Your task to perform on an android device: toggle notifications settings in the gmail app Image 0: 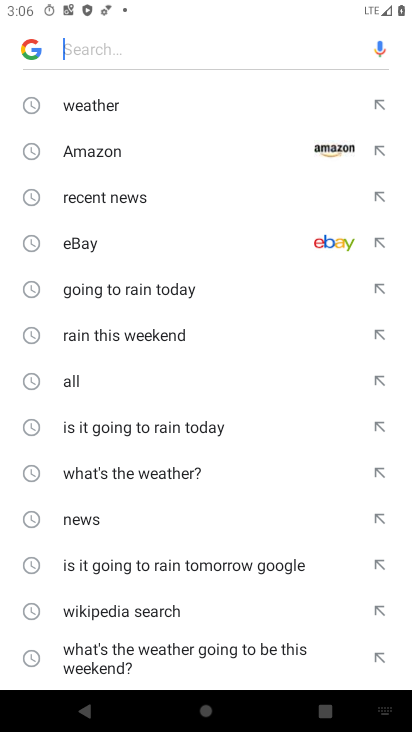
Step 0: press home button
Your task to perform on an android device: toggle notifications settings in the gmail app Image 1: 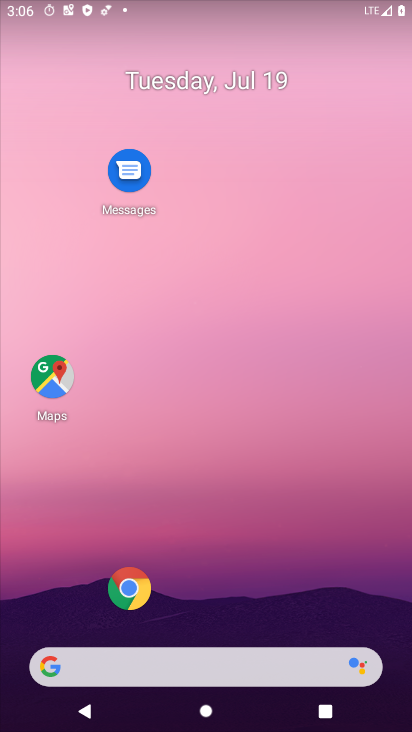
Step 1: drag from (39, 696) to (288, 77)
Your task to perform on an android device: toggle notifications settings in the gmail app Image 2: 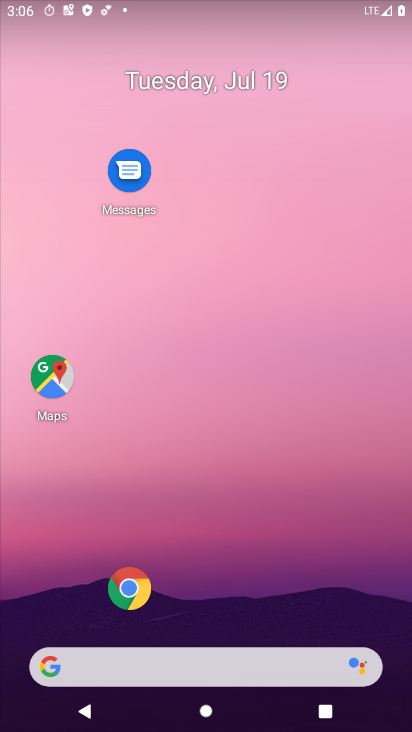
Step 2: drag from (37, 707) to (208, 250)
Your task to perform on an android device: toggle notifications settings in the gmail app Image 3: 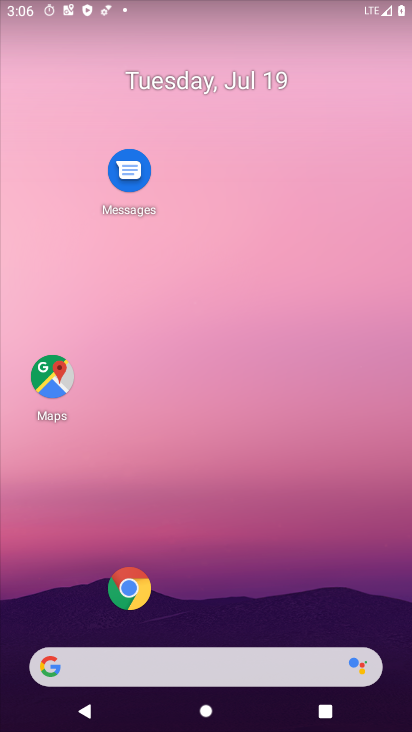
Step 3: drag from (18, 700) to (299, 22)
Your task to perform on an android device: toggle notifications settings in the gmail app Image 4: 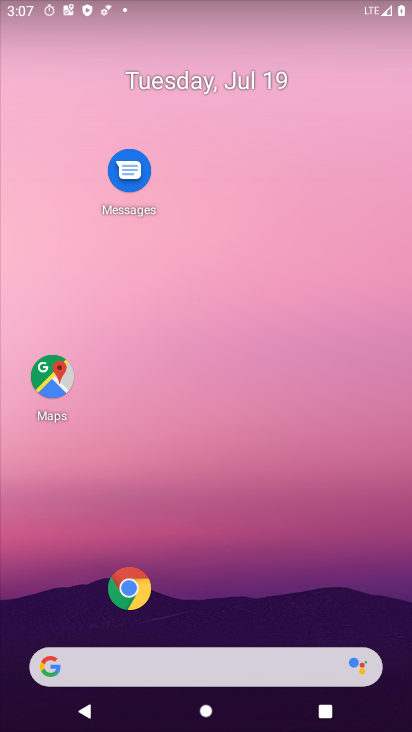
Step 4: drag from (17, 692) to (196, 20)
Your task to perform on an android device: toggle notifications settings in the gmail app Image 5: 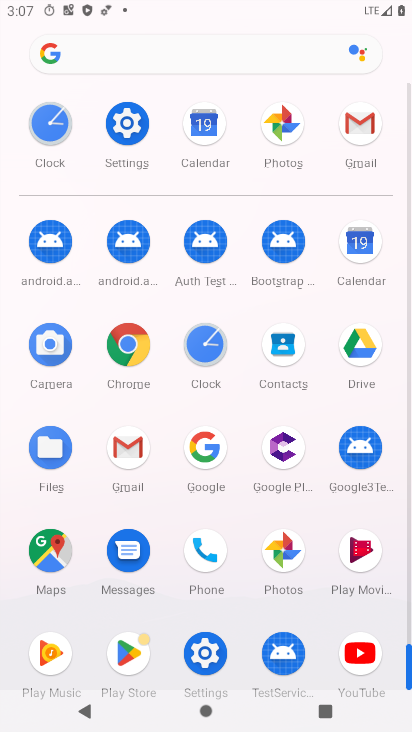
Step 5: click (120, 453)
Your task to perform on an android device: toggle notifications settings in the gmail app Image 6: 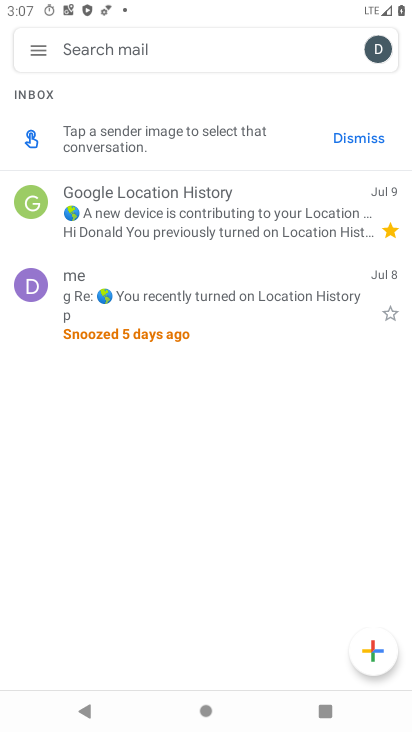
Step 6: click (39, 48)
Your task to perform on an android device: toggle notifications settings in the gmail app Image 7: 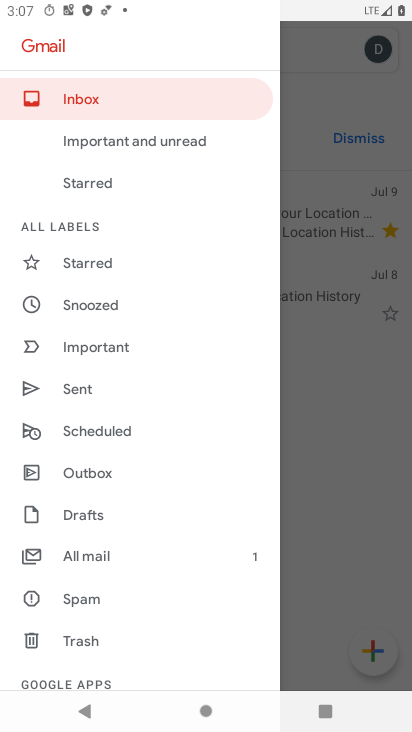
Step 7: drag from (140, 647) to (160, 365)
Your task to perform on an android device: toggle notifications settings in the gmail app Image 8: 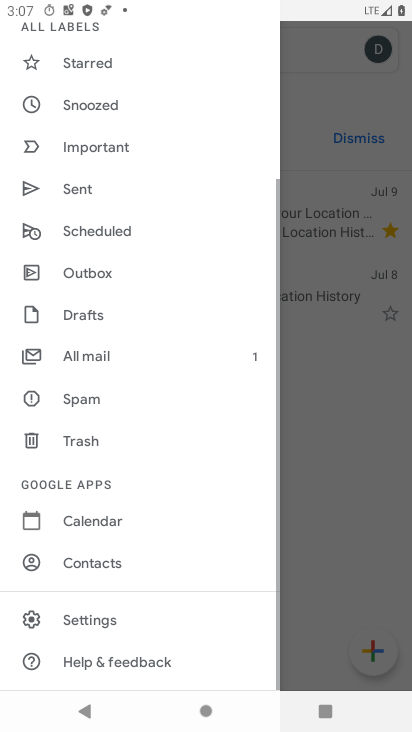
Step 8: click (83, 621)
Your task to perform on an android device: toggle notifications settings in the gmail app Image 9: 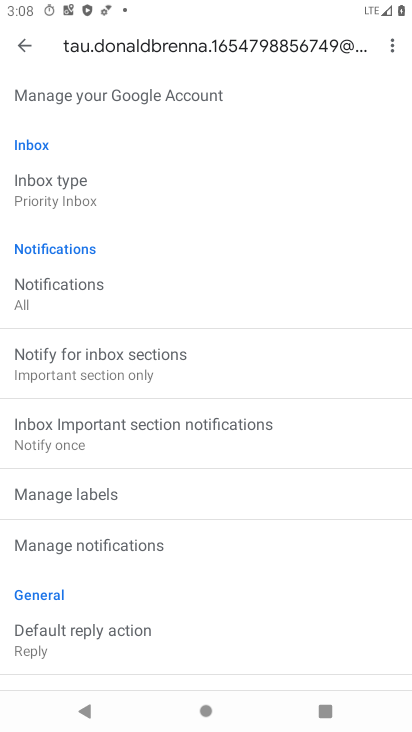
Step 9: click (73, 305)
Your task to perform on an android device: toggle notifications settings in the gmail app Image 10: 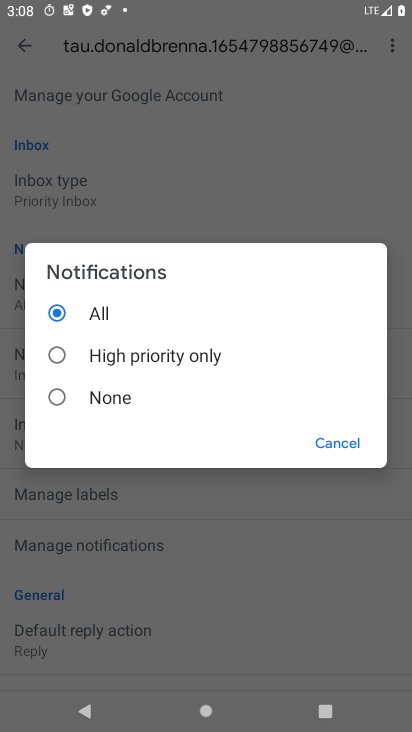
Step 10: task complete